Your task to perform on an android device: turn on the 24-hour format for clock Image 0: 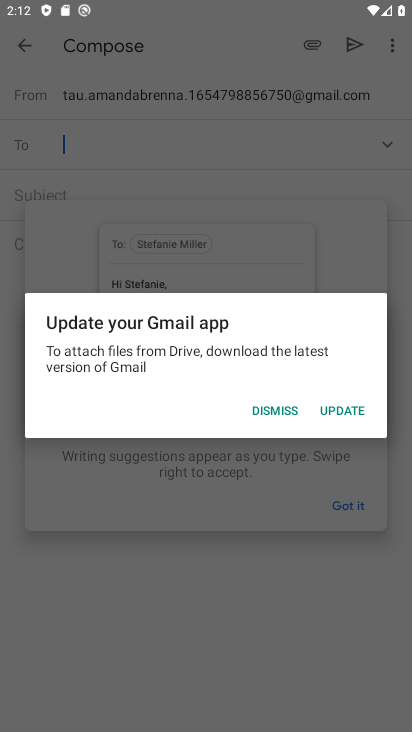
Step 0: press home button
Your task to perform on an android device: turn on the 24-hour format for clock Image 1: 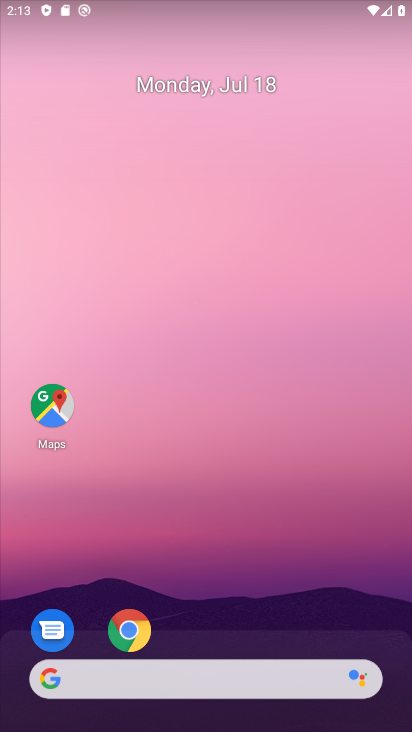
Step 1: drag from (184, 501) to (205, 46)
Your task to perform on an android device: turn on the 24-hour format for clock Image 2: 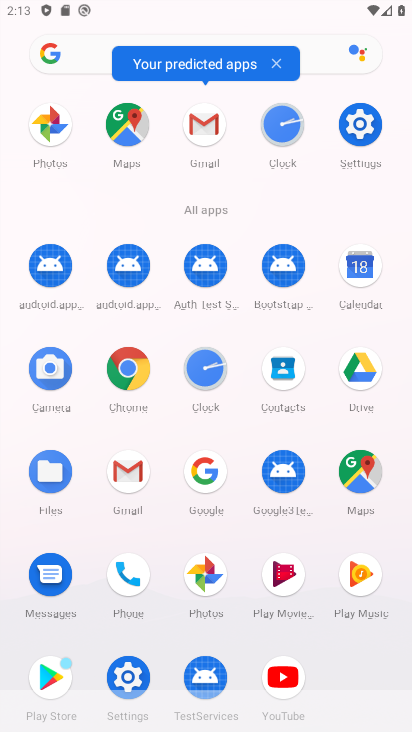
Step 2: click (295, 133)
Your task to perform on an android device: turn on the 24-hour format for clock Image 3: 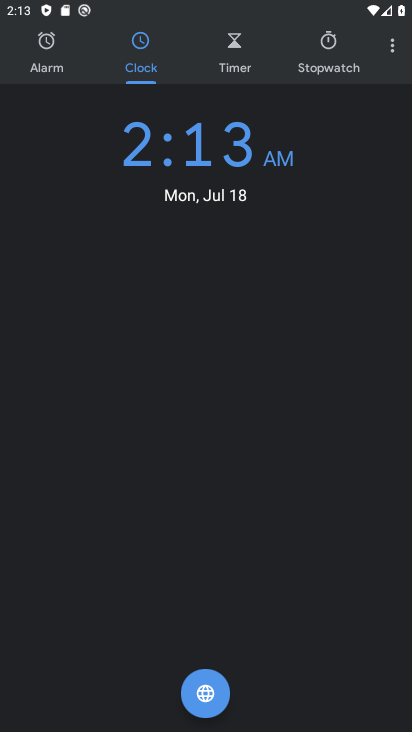
Step 3: click (397, 57)
Your task to perform on an android device: turn on the 24-hour format for clock Image 4: 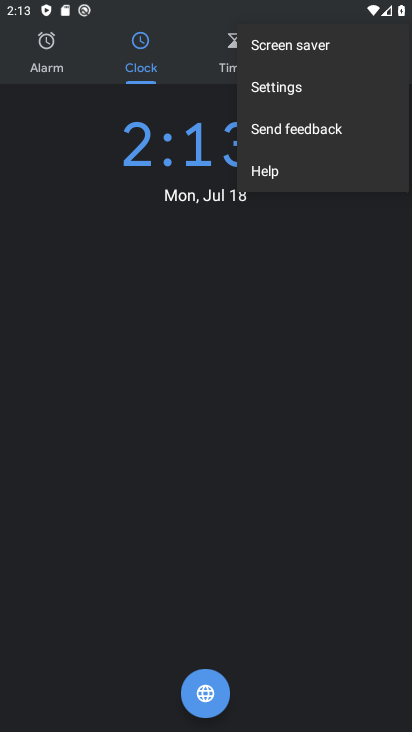
Step 4: click (337, 90)
Your task to perform on an android device: turn on the 24-hour format for clock Image 5: 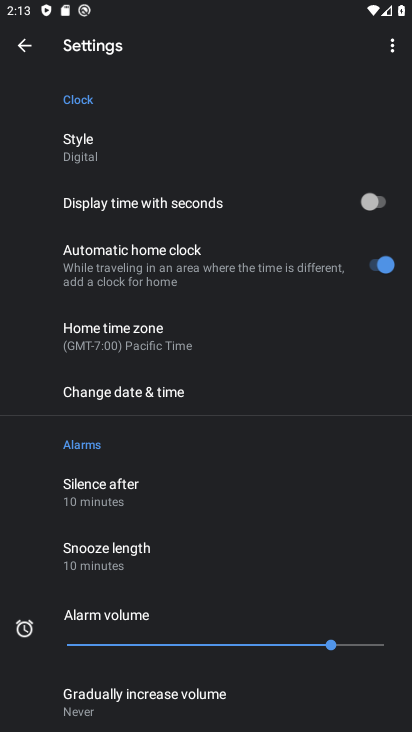
Step 5: click (180, 383)
Your task to perform on an android device: turn on the 24-hour format for clock Image 6: 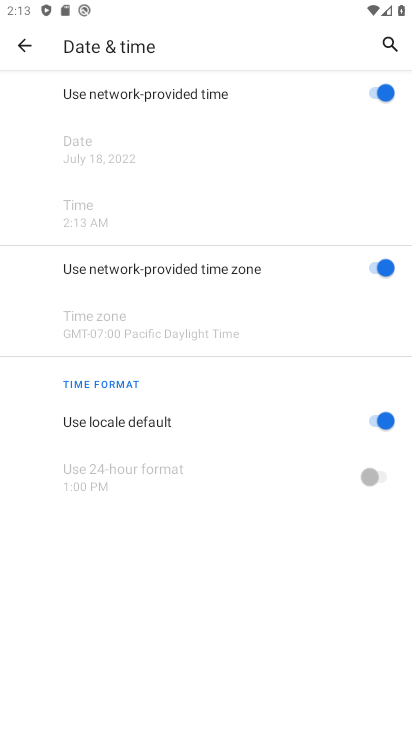
Step 6: click (376, 473)
Your task to perform on an android device: turn on the 24-hour format for clock Image 7: 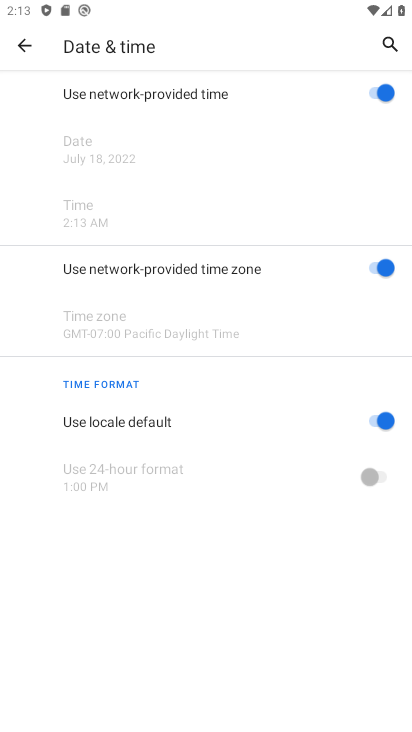
Step 7: click (388, 478)
Your task to perform on an android device: turn on the 24-hour format for clock Image 8: 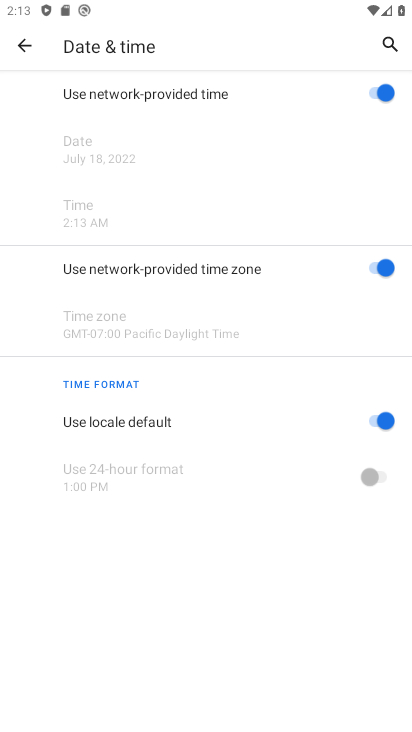
Step 8: click (370, 477)
Your task to perform on an android device: turn on the 24-hour format for clock Image 9: 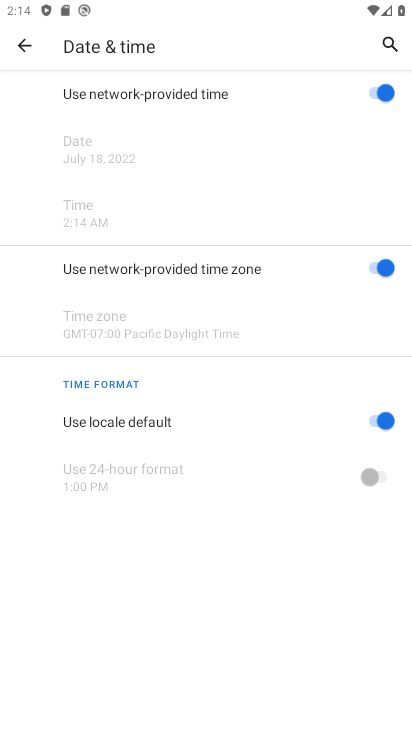
Step 9: click (374, 477)
Your task to perform on an android device: turn on the 24-hour format for clock Image 10: 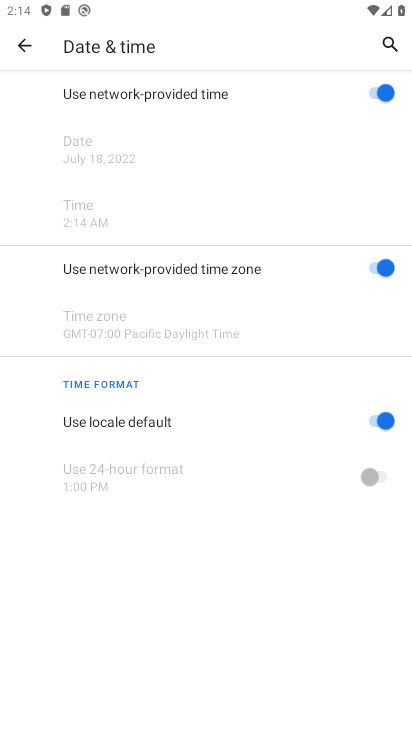
Step 10: click (383, 480)
Your task to perform on an android device: turn on the 24-hour format for clock Image 11: 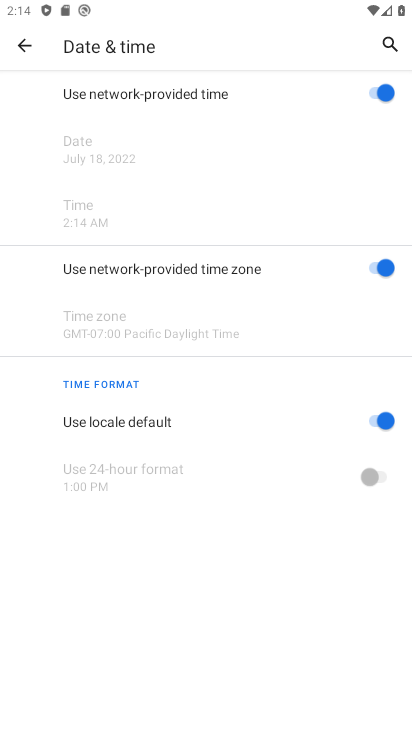
Step 11: click (383, 480)
Your task to perform on an android device: turn on the 24-hour format for clock Image 12: 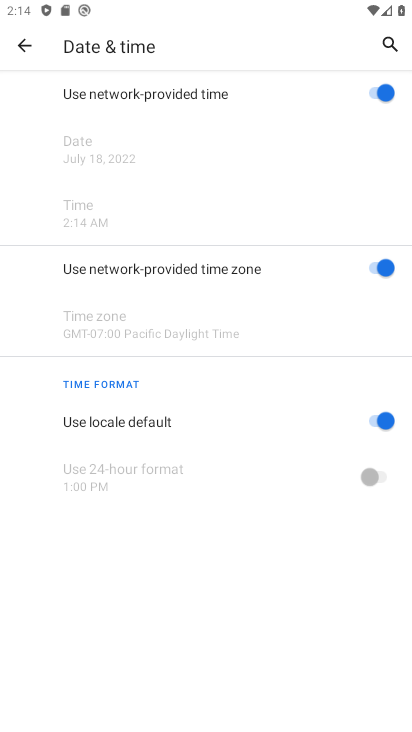
Step 12: click (383, 480)
Your task to perform on an android device: turn on the 24-hour format for clock Image 13: 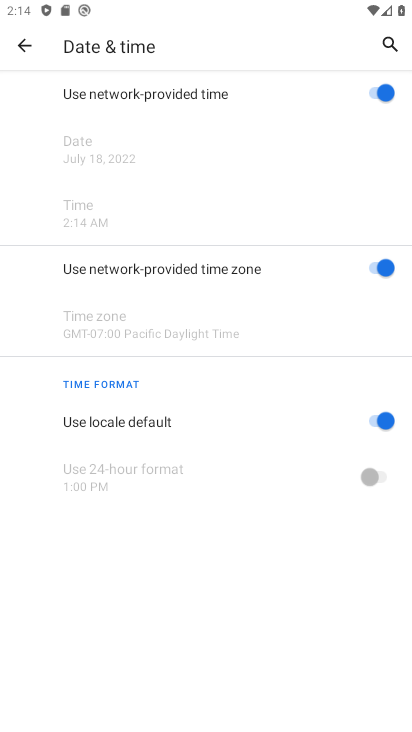
Step 13: click (391, 413)
Your task to perform on an android device: turn on the 24-hour format for clock Image 14: 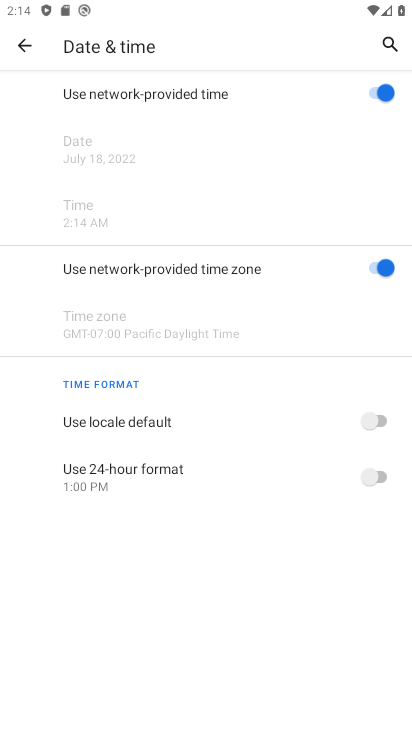
Step 14: click (377, 485)
Your task to perform on an android device: turn on the 24-hour format for clock Image 15: 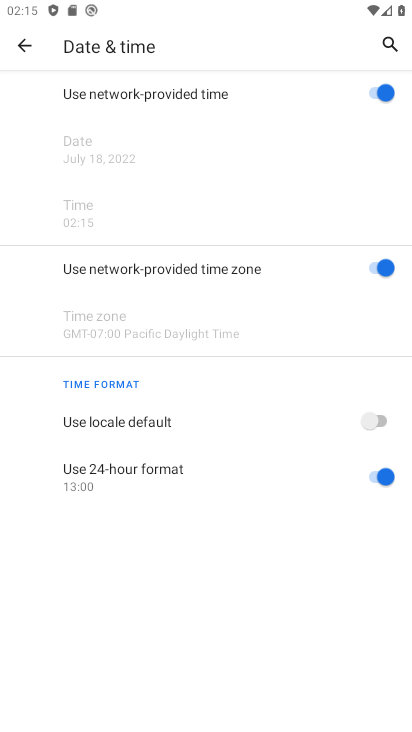
Step 15: task complete